Your task to perform on an android device: Open maps Image 0: 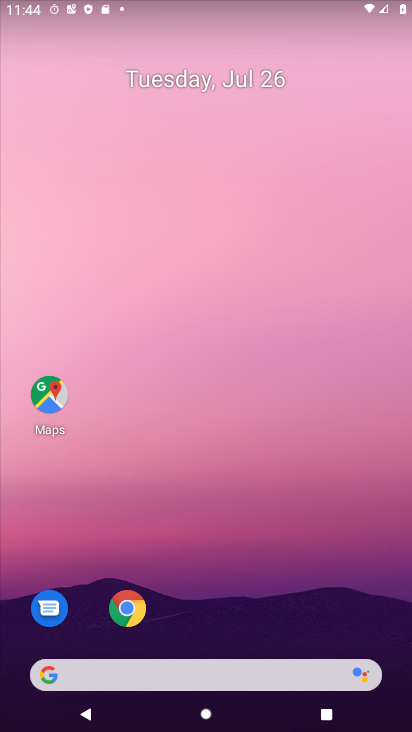
Step 0: click (66, 411)
Your task to perform on an android device: Open maps Image 1: 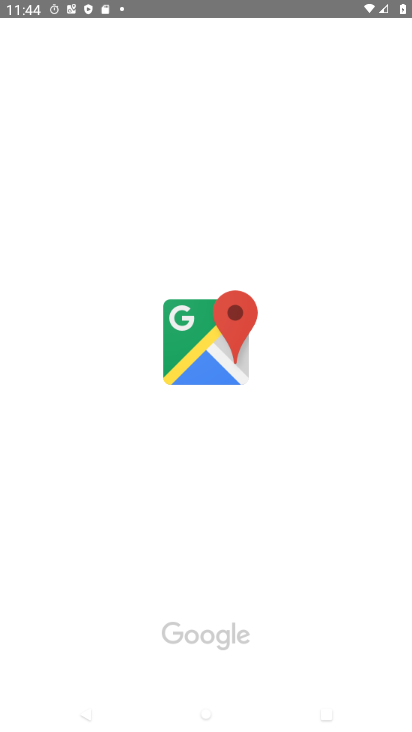
Step 1: click (51, 409)
Your task to perform on an android device: Open maps Image 2: 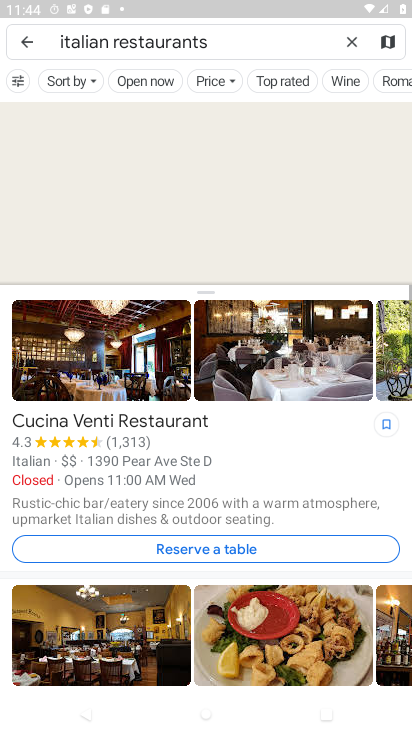
Step 2: task complete